Your task to perform on an android device: Open Google Chrome and click the shortcut for Amazon.com Image 0: 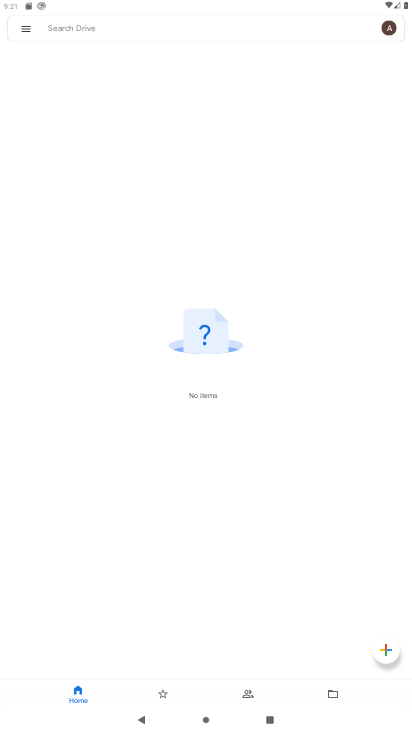
Step 0: press home button
Your task to perform on an android device: Open Google Chrome and click the shortcut for Amazon.com Image 1: 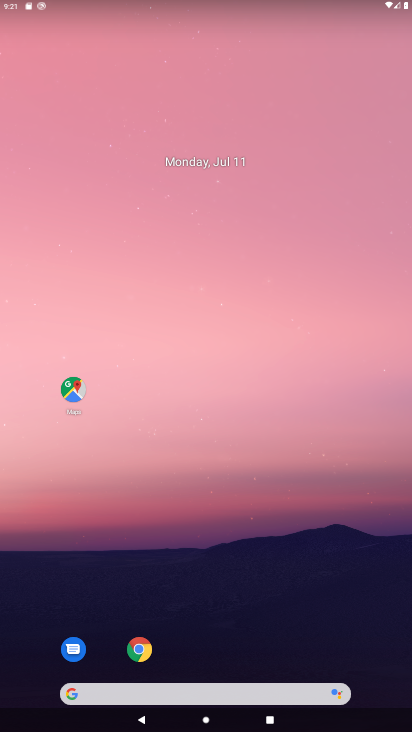
Step 1: click (142, 651)
Your task to perform on an android device: Open Google Chrome and click the shortcut for Amazon.com Image 2: 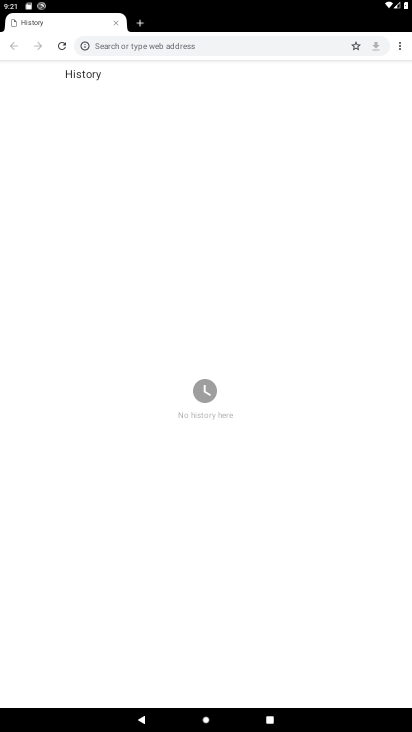
Step 2: click (138, 24)
Your task to perform on an android device: Open Google Chrome and click the shortcut for Amazon.com Image 3: 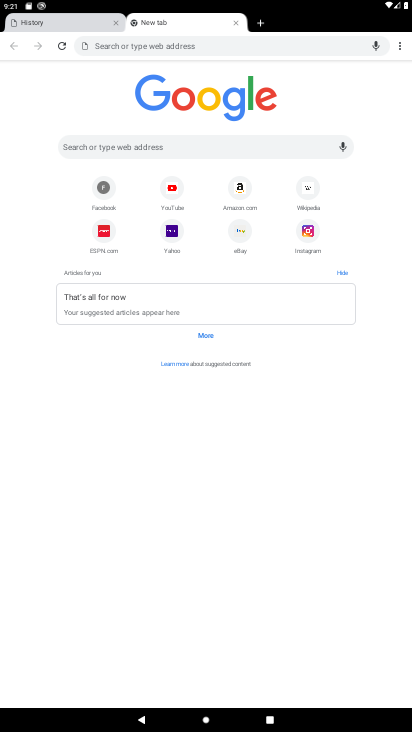
Step 3: click (241, 187)
Your task to perform on an android device: Open Google Chrome and click the shortcut for Amazon.com Image 4: 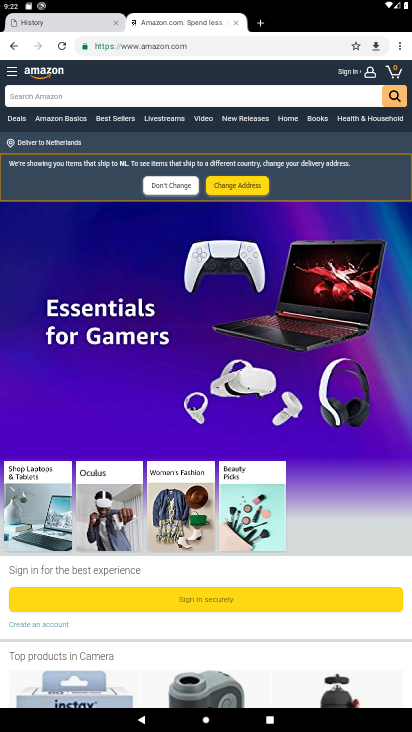
Step 4: task complete